Your task to perform on an android device: Go to privacy settings Image 0: 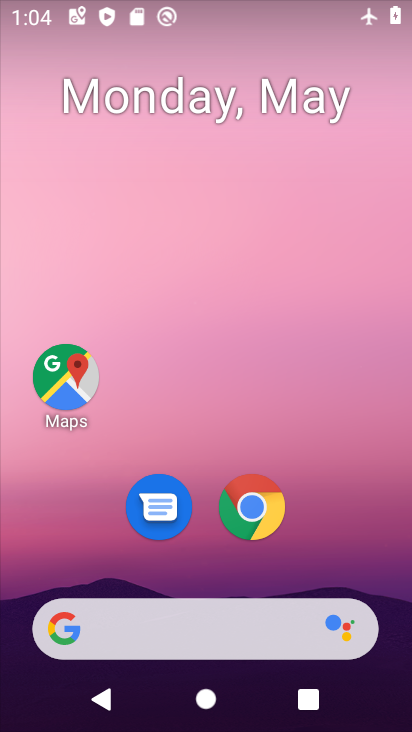
Step 0: drag from (239, 723) to (234, 139)
Your task to perform on an android device: Go to privacy settings Image 1: 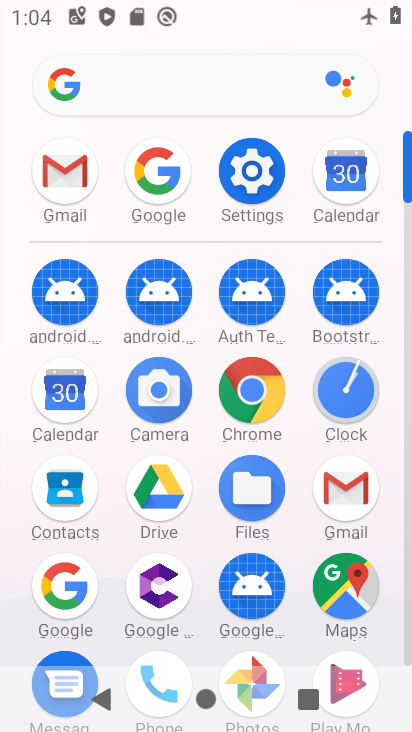
Step 1: click (251, 176)
Your task to perform on an android device: Go to privacy settings Image 2: 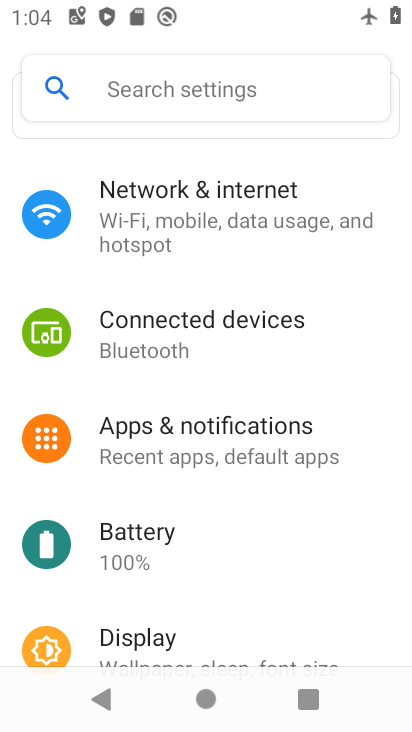
Step 2: drag from (136, 442) to (132, 243)
Your task to perform on an android device: Go to privacy settings Image 3: 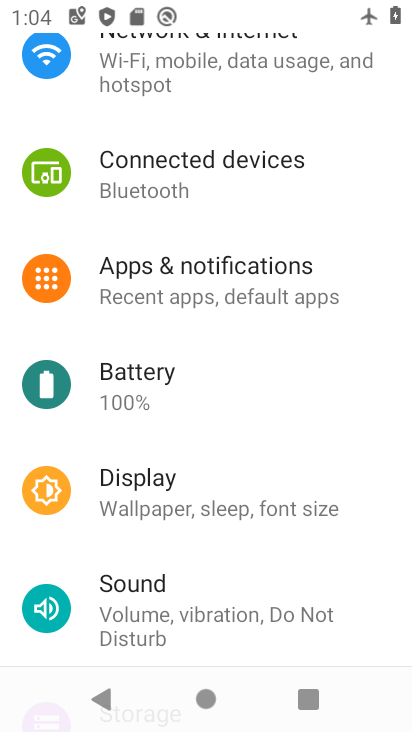
Step 3: drag from (161, 639) to (163, 264)
Your task to perform on an android device: Go to privacy settings Image 4: 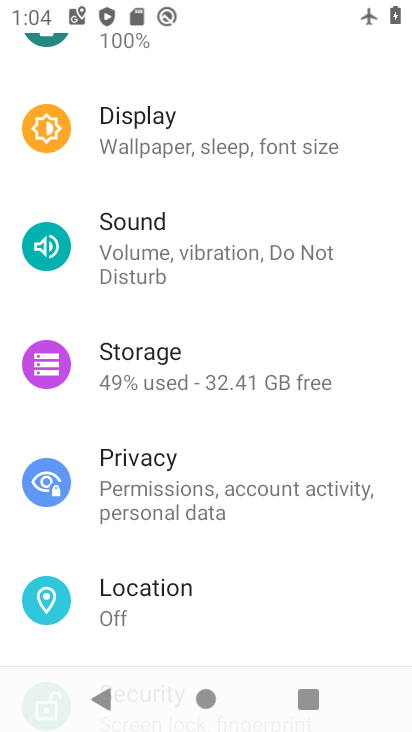
Step 4: click (134, 478)
Your task to perform on an android device: Go to privacy settings Image 5: 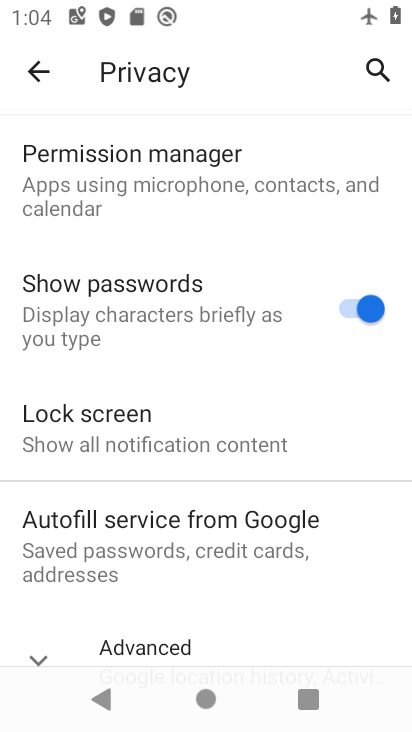
Step 5: task complete